Your task to perform on an android device: Open settings Image 0: 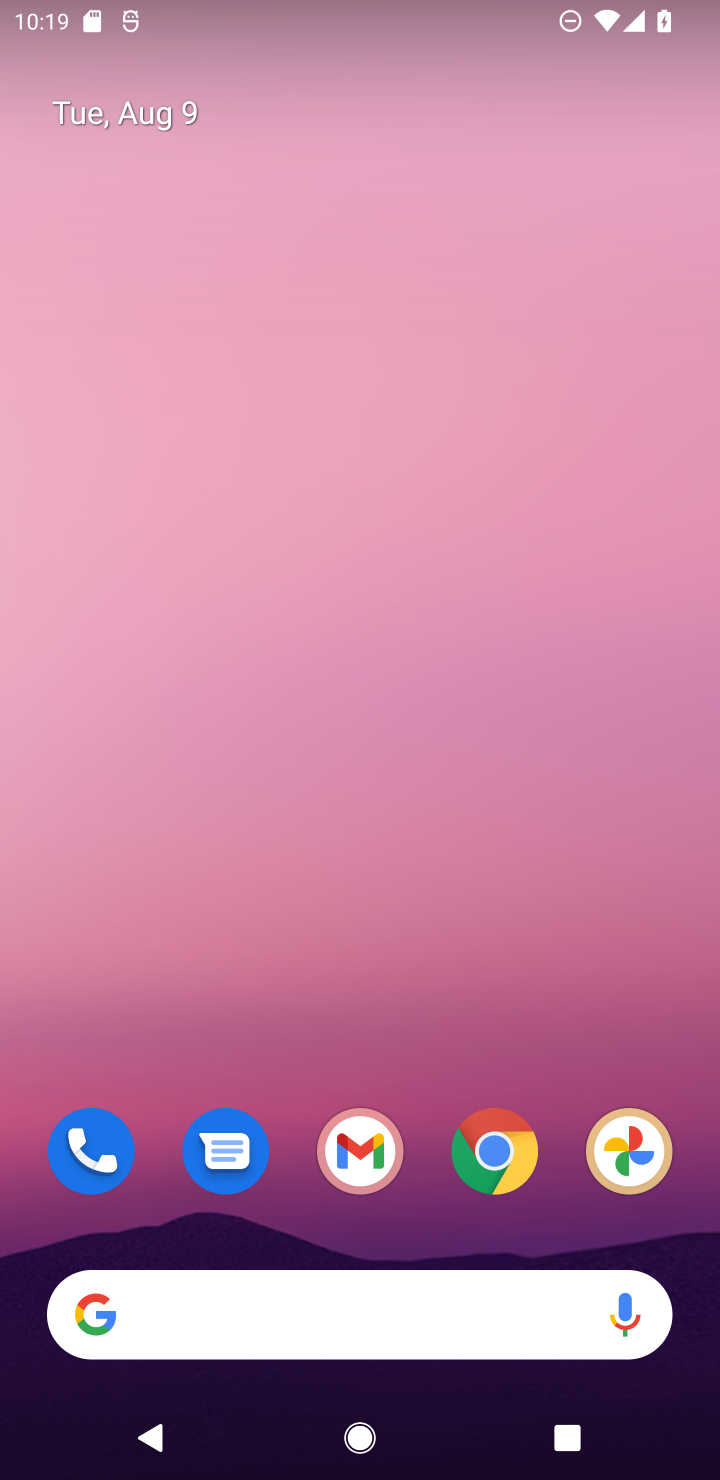
Step 0: drag from (464, 841) to (522, 61)
Your task to perform on an android device: Open settings Image 1: 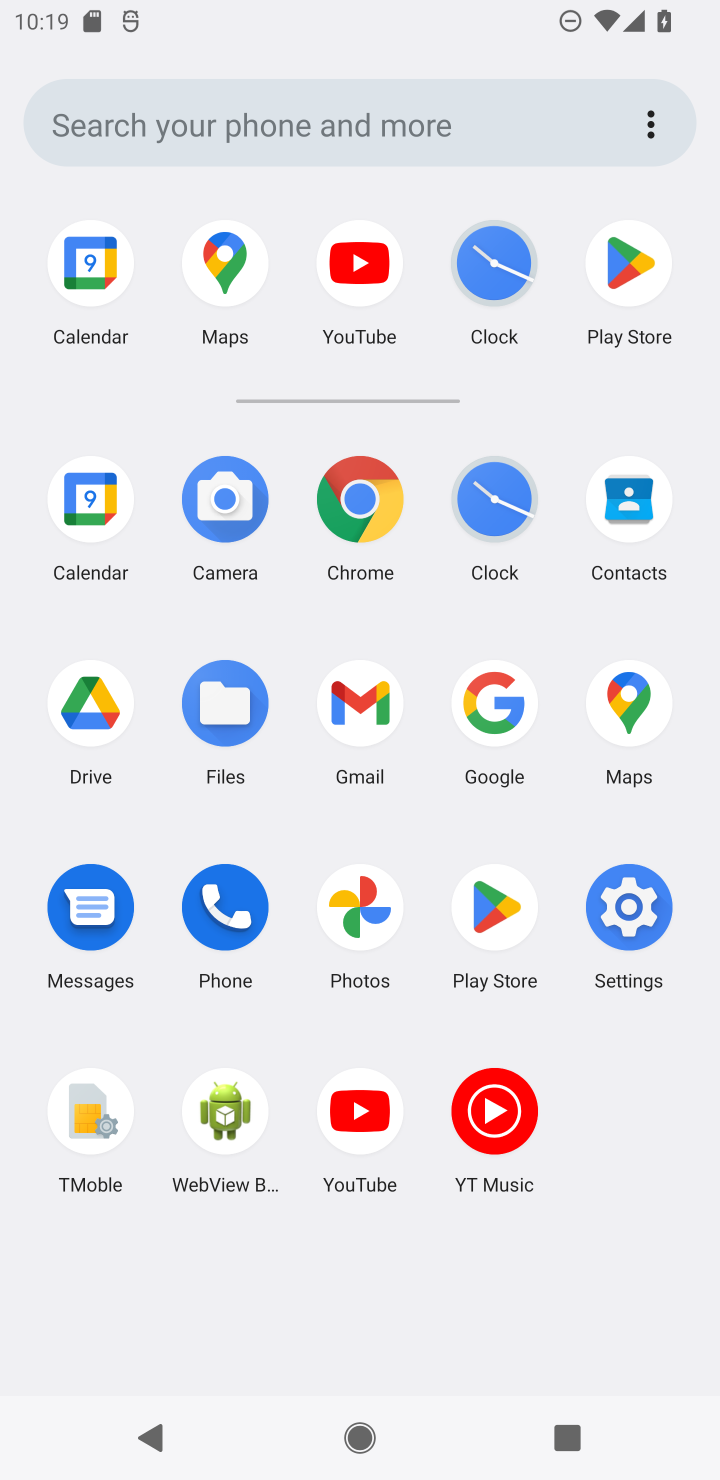
Step 1: click (641, 920)
Your task to perform on an android device: Open settings Image 2: 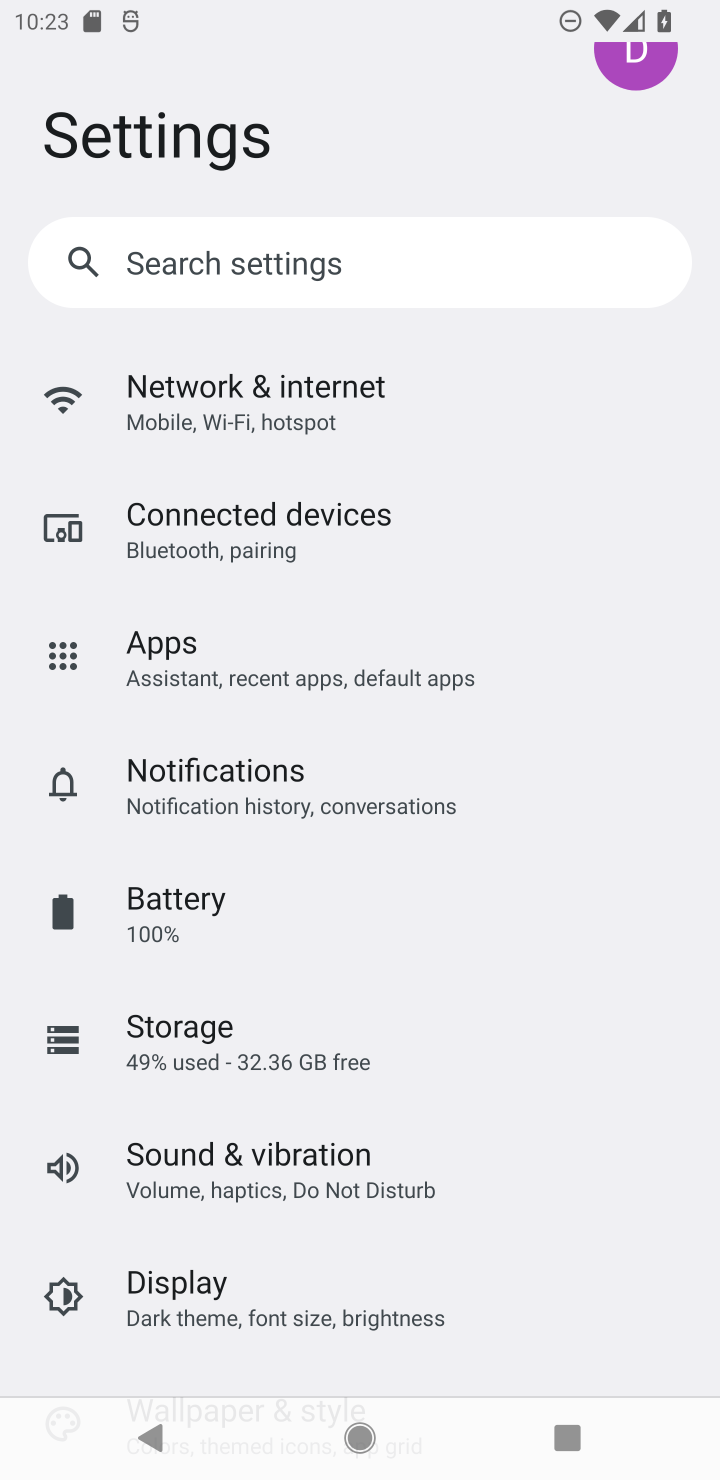
Step 2: task complete